Your task to perform on an android device: search for starred emails in the gmail app Image 0: 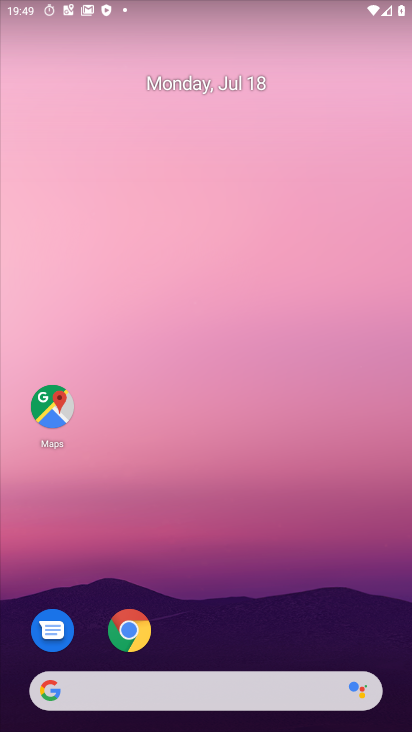
Step 0: drag from (274, 449) to (285, 5)
Your task to perform on an android device: search for starred emails in the gmail app Image 1: 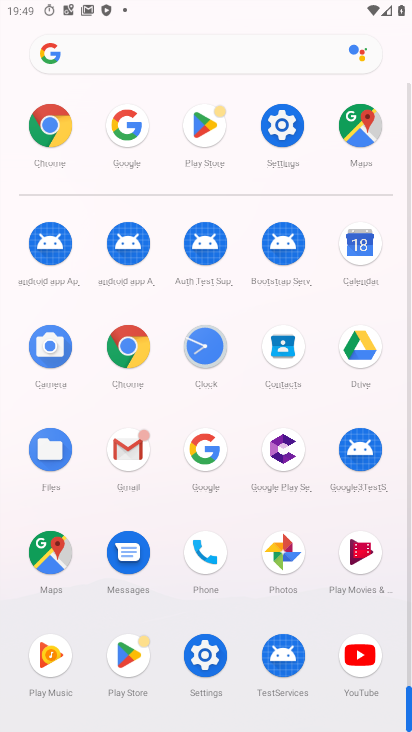
Step 1: click (132, 453)
Your task to perform on an android device: search for starred emails in the gmail app Image 2: 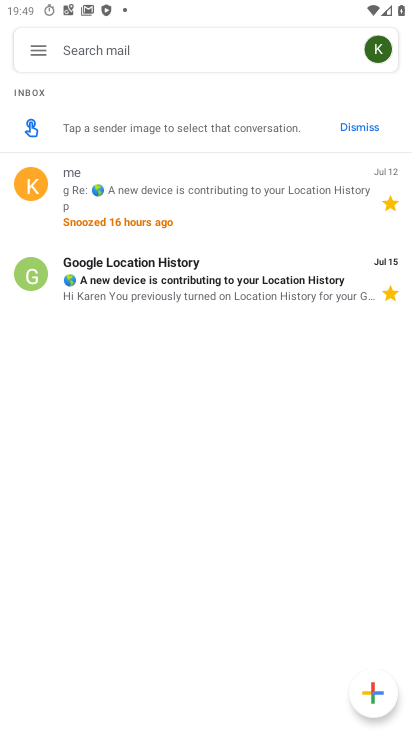
Step 2: click (35, 49)
Your task to perform on an android device: search for starred emails in the gmail app Image 3: 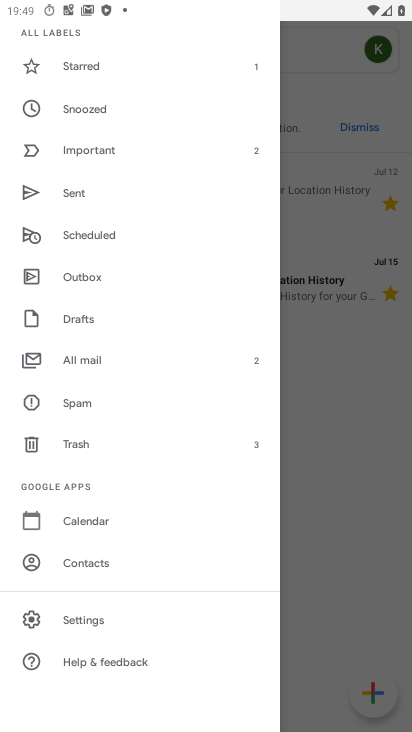
Step 3: click (79, 63)
Your task to perform on an android device: search for starred emails in the gmail app Image 4: 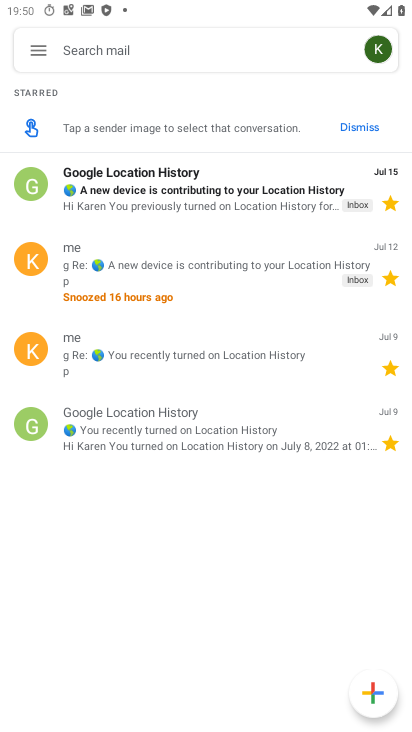
Step 4: click (233, 280)
Your task to perform on an android device: search for starred emails in the gmail app Image 5: 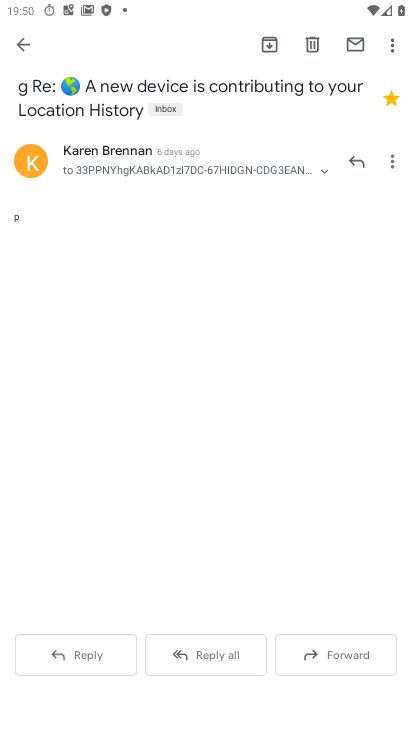
Step 5: task complete